Your task to perform on an android device: Open calendar and show me the fourth week of next month Image 0: 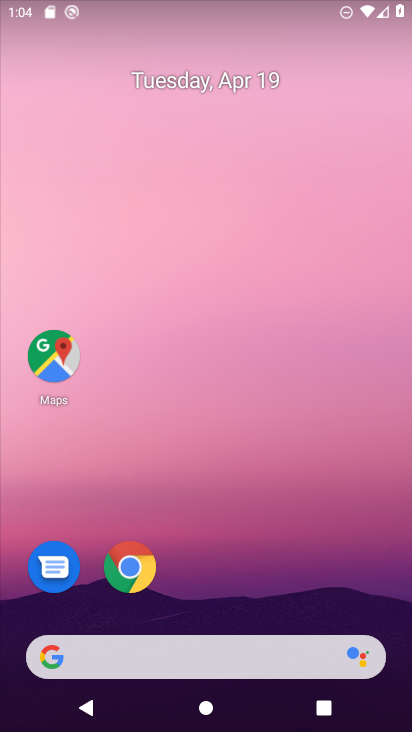
Step 0: drag from (285, 209) to (273, 11)
Your task to perform on an android device: Open calendar and show me the fourth week of next month Image 1: 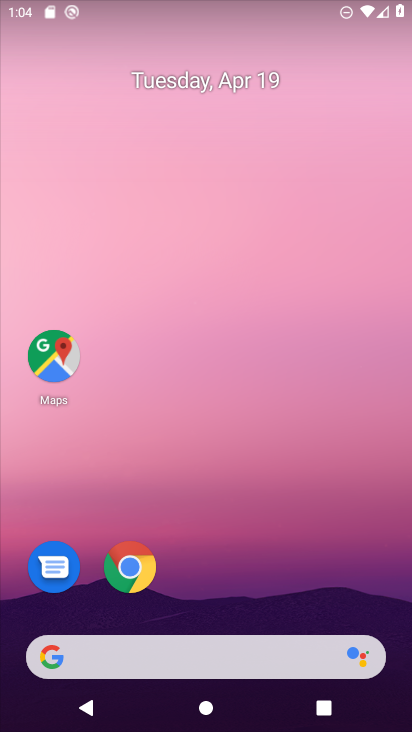
Step 1: drag from (295, 558) to (258, 140)
Your task to perform on an android device: Open calendar and show me the fourth week of next month Image 2: 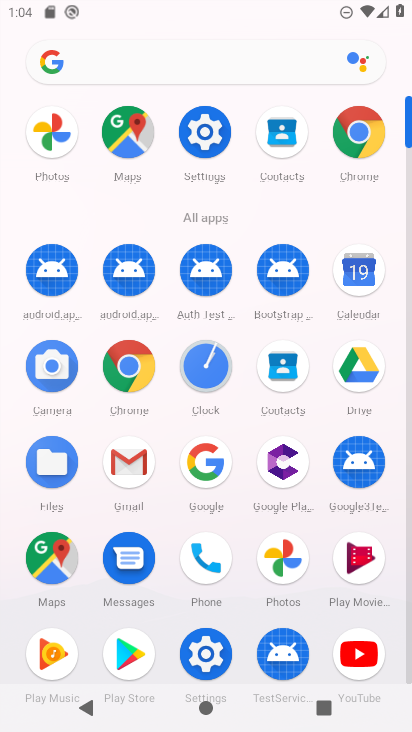
Step 2: click (352, 253)
Your task to perform on an android device: Open calendar and show me the fourth week of next month Image 3: 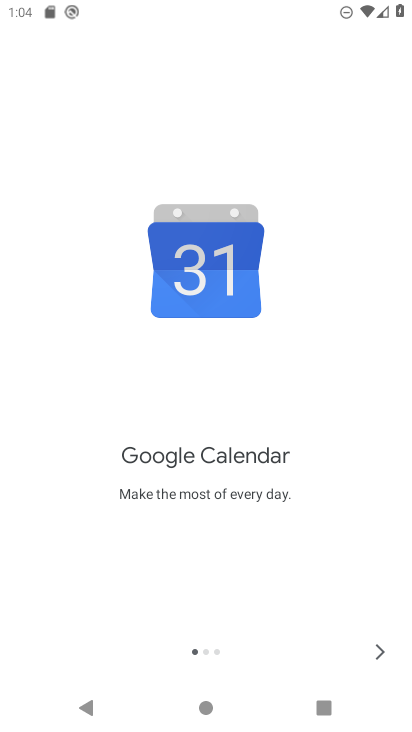
Step 3: click (387, 650)
Your task to perform on an android device: Open calendar and show me the fourth week of next month Image 4: 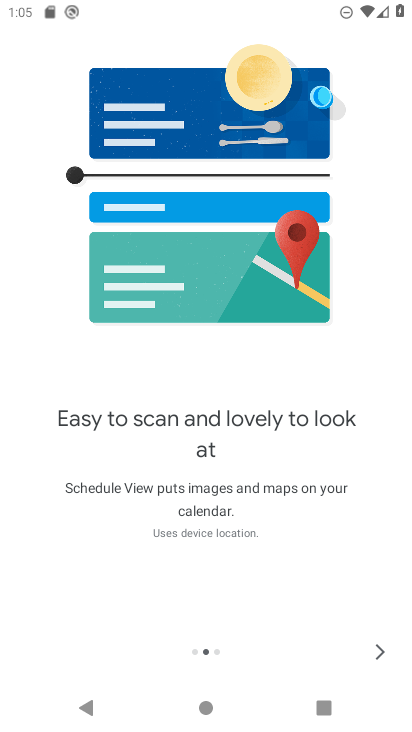
Step 4: click (378, 643)
Your task to perform on an android device: Open calendar and show me the fourth week of next month Image 5: 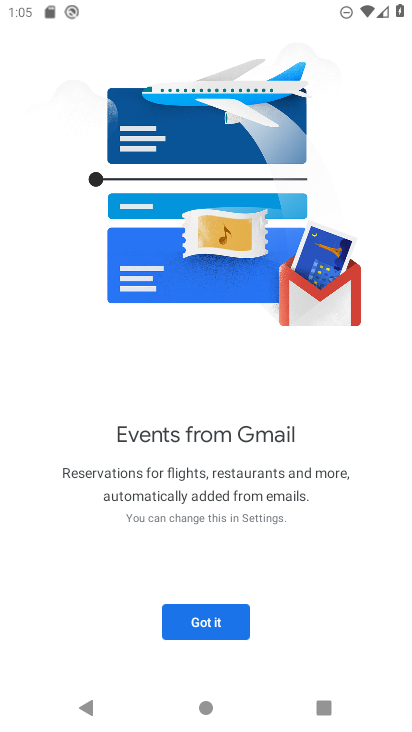
Step 5: click (199, 624)
Your task to perform on an android device: Open calendar and show me the fourth week of next month Image 6: 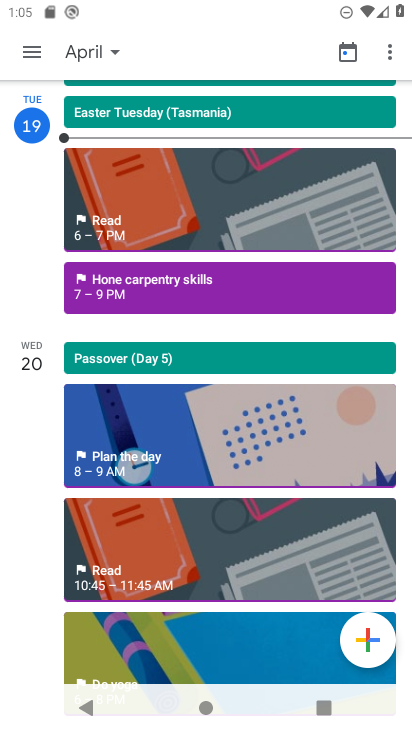
Step 6: click (84, 47)
Your task to perform on an android device: Open calendar and show me the fourth week of next month Image 7: 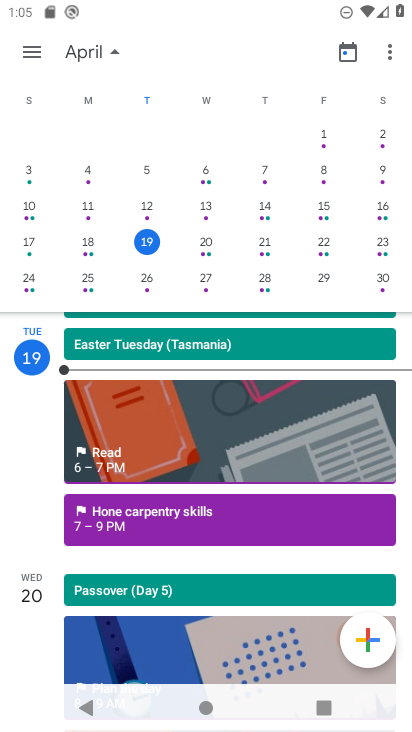
Step 7: drag from (358, 184) to (0, 209)
Your task to perform on an android device: Open calendar and show me the fourth week of next month Image 8: 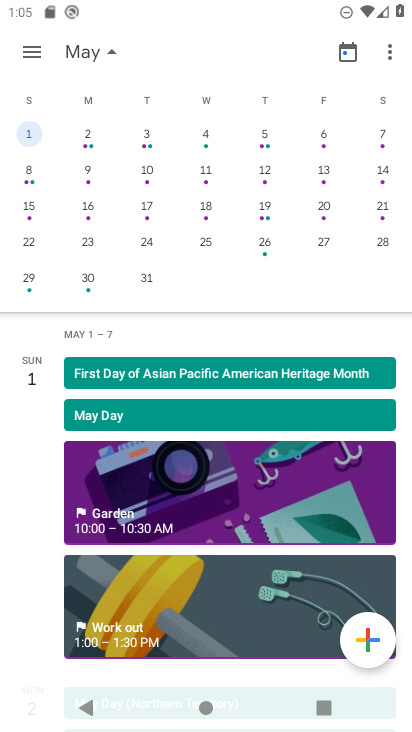
Step 8: click (145, 240)
Your task to perform on an android device: Open calendar and show me the fourth week of next month Image 9: 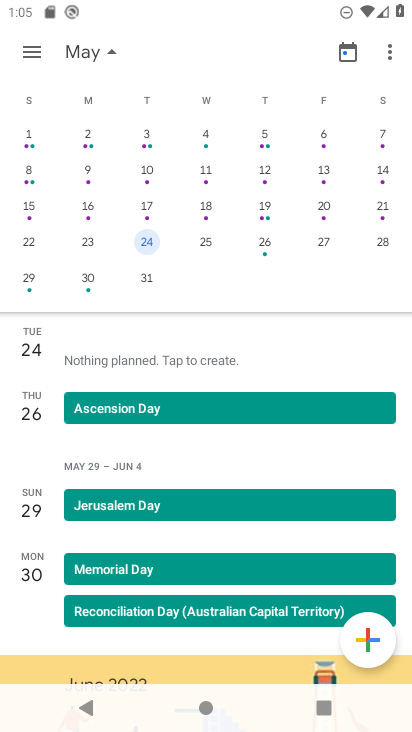
Step 9: task complete